Your task to perform on an android device: toggle notification dots Image 0: 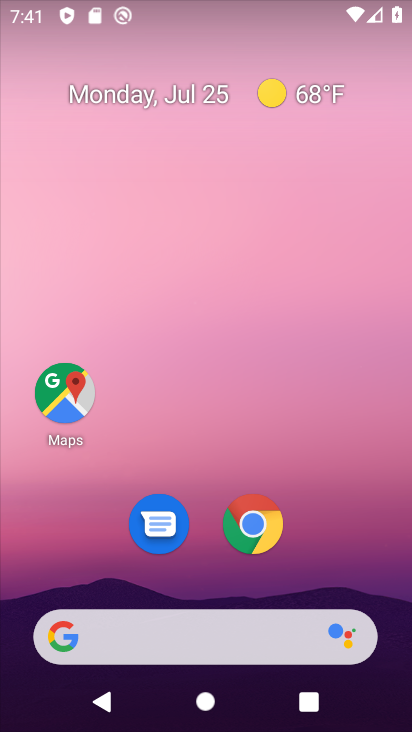
Step 0: drag from (323, 568) to (329, 14)
Your task to perform on an android device: toggle notification dots Image 1: 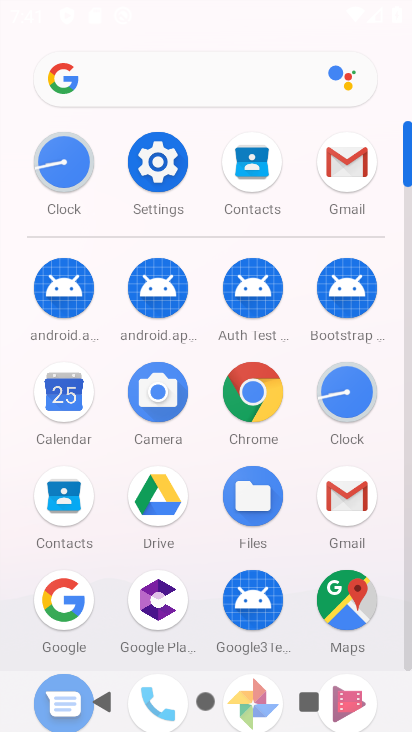
Step 1: click (170, 171)
Your task to perform on an android device: toggle notification dots Image 2: 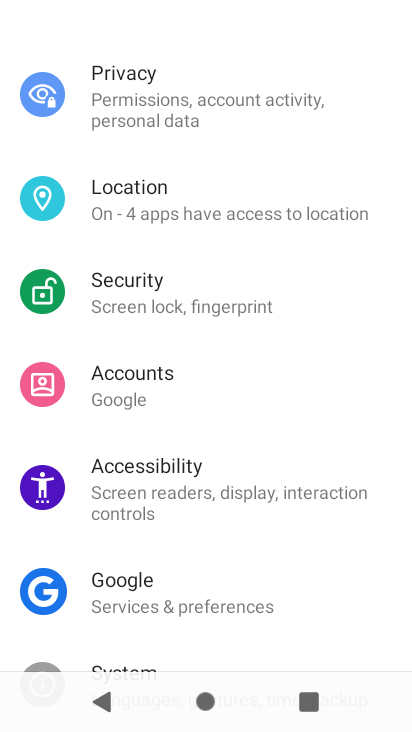
Step 2: drag from (238, 560) to (266, 355)
Your task to perform on an android device: toggle notification dots Image 3: 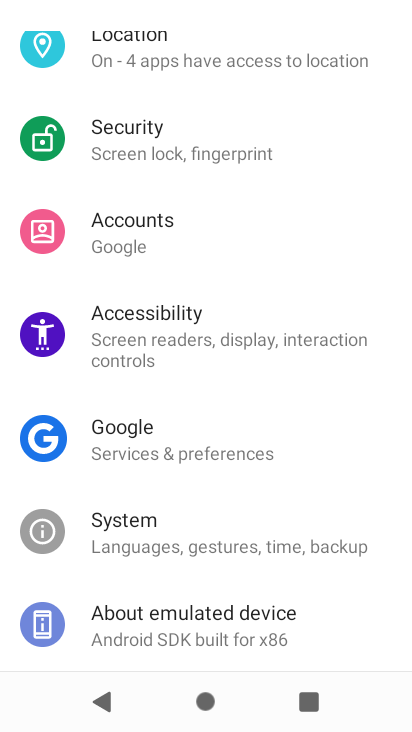
Step 3: drag from (258, 181) to (250, 561)
Your task to perform on an android device: toggle notification dots Image 4: 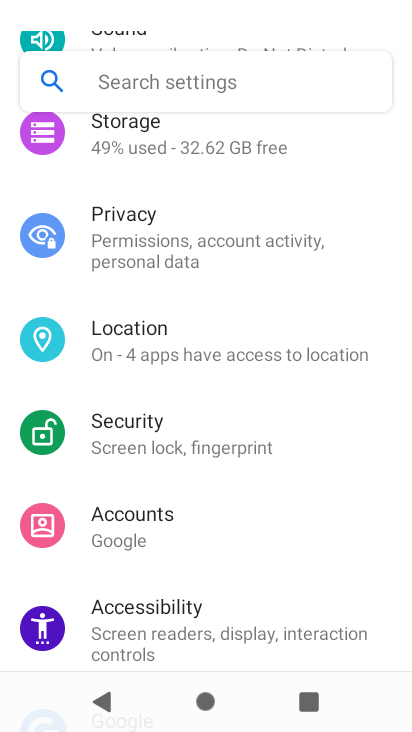
Step 4: drag from (224, 183) to (217, 615)
Your task to perform on an android device: toggle notification dots Image 5: 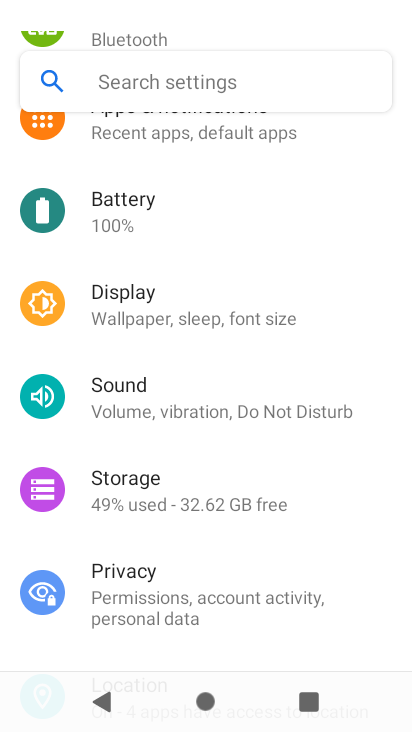
Step 5: drag from (232, 233) to (226, 577)
Your task to perform on an android device: toggle notification dots Image 6: 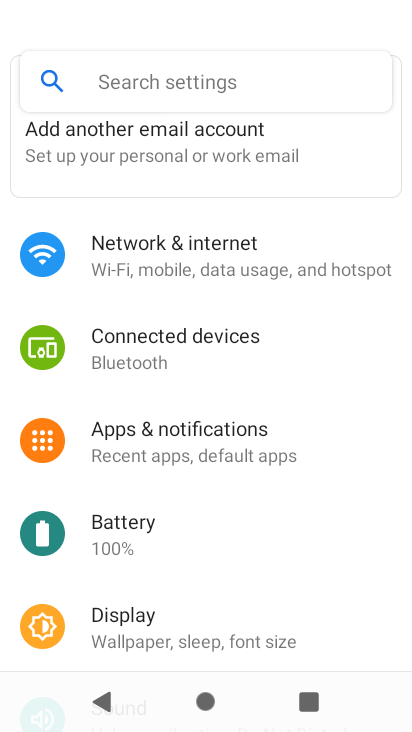
Step 6: click (239, 437)
Your task to perform on an android device: toggle notification dots Image 7: 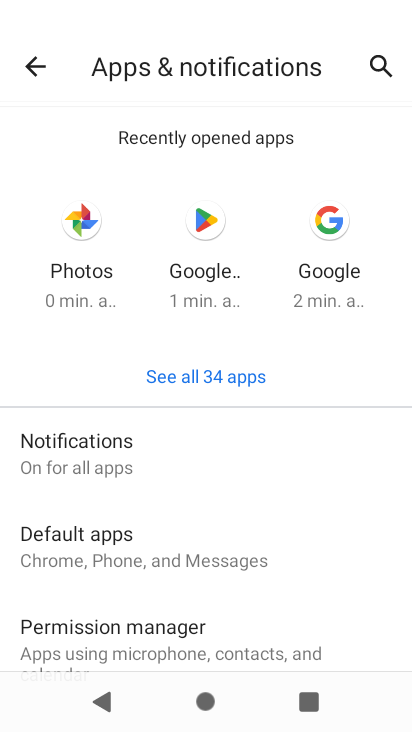
Step 7: click (116, 460)
Your task to perform on an android device: toggle notification dots Image 8: 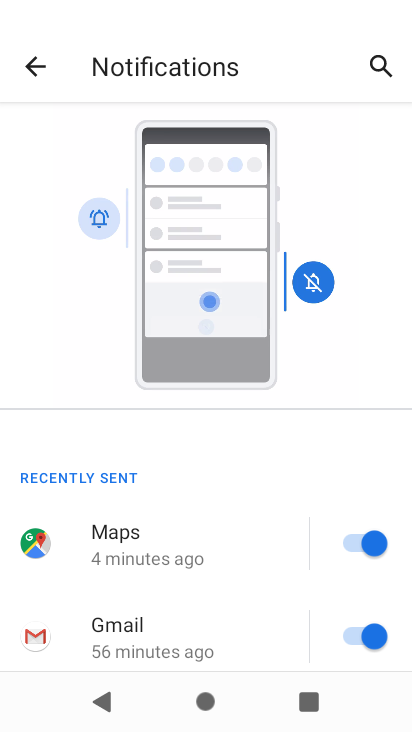
Step 8: drag from (227, 563) to (278, 18)
Your task to perform on an android device: toggle notification dots Image 9: 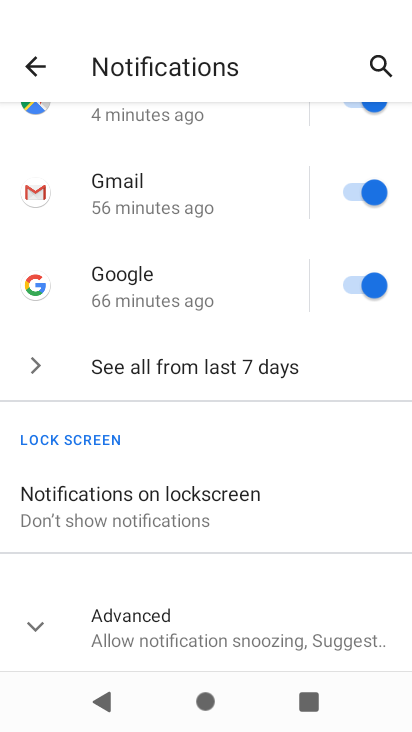
Step 9: click (36, 618)
Your task to perform on an android device: toggle notification dots Image 10: 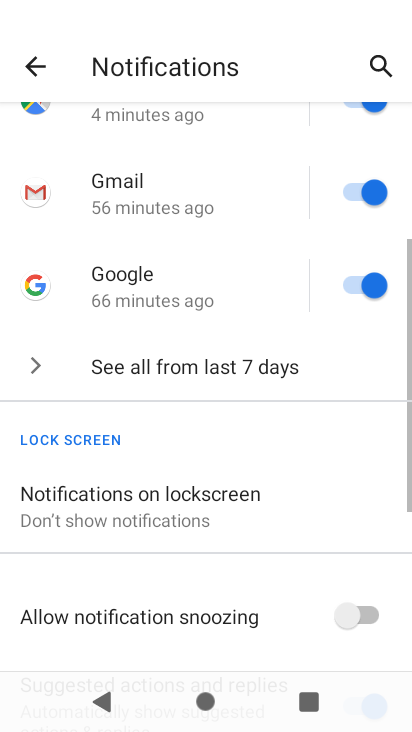
Step 10: drag from (198, 518) to (293, 134)
Your task to perform on an android device: toggle notification dots Image 11: 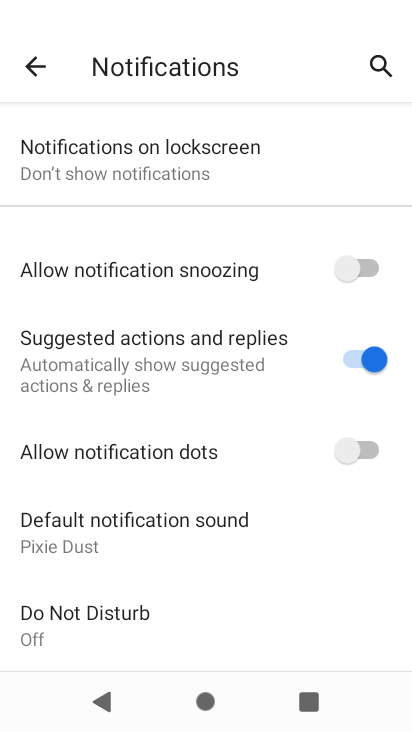
Step 11: click (367, 445)
Your task to perform on an android device: toggle notification dots Image 12: 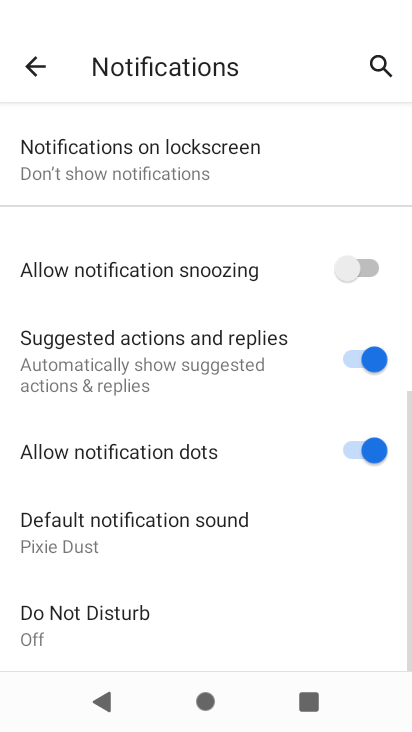
Step 12: task complete